Your task to perform on an android device: Add "razer blade" to the cart on costco, then select checkout. Image 0: 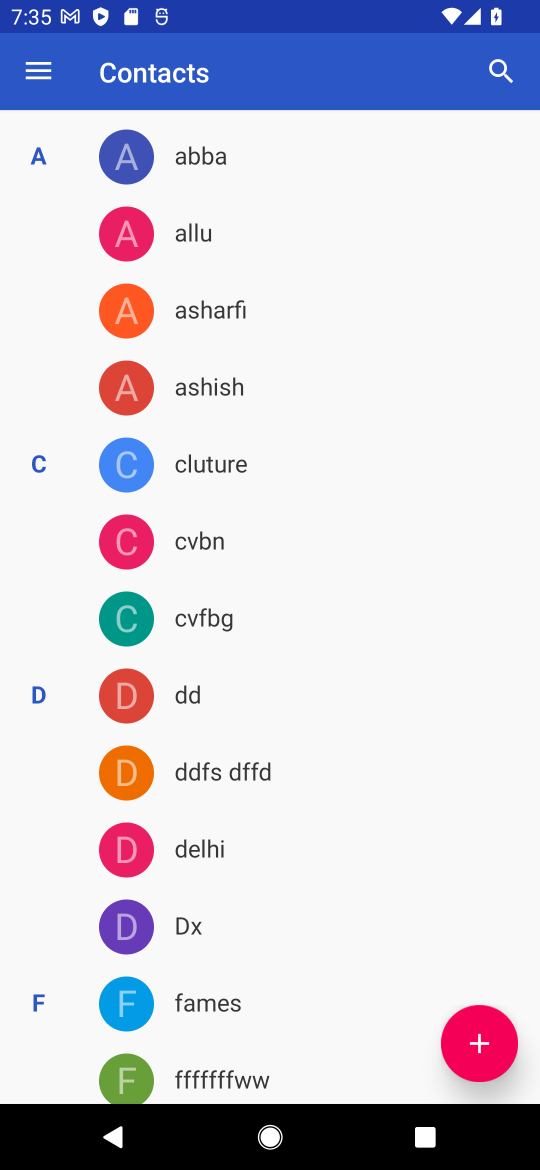
Step 0: press home button
Your task to perform on an android device: Add "razer blade" to the cart on costco, then select checkout. Image 1: 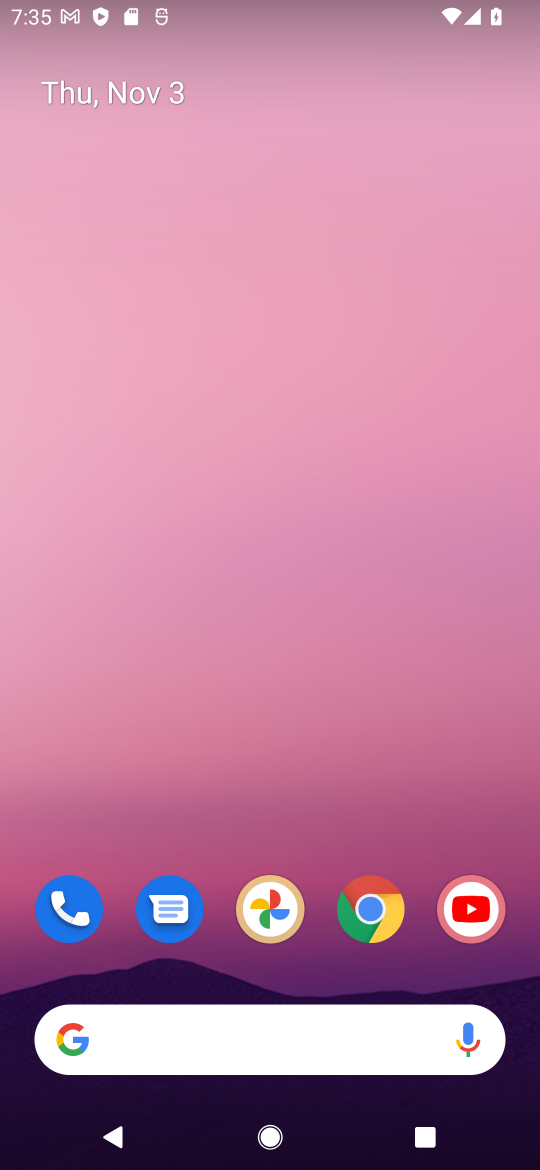
Step 1: drag from (258, 1004) to (334, 384)
Your task to perform on an android device: Add "razer blade" to the cart on costco, then select checkout. Image 2: 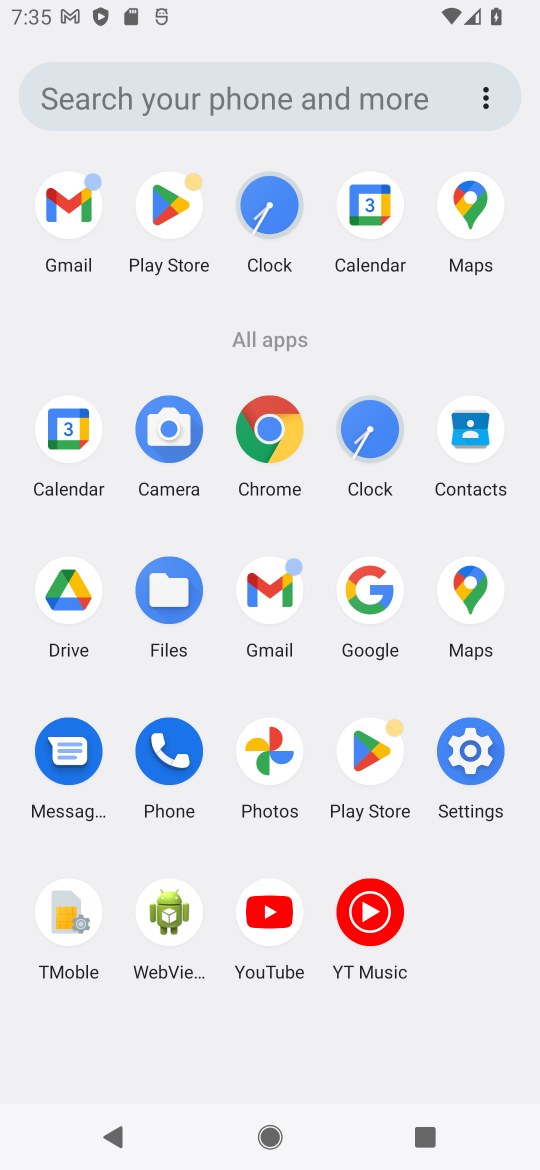
Step 2: click (355, 561)
Your task to perform on an android device: Add "razer blade" to the cart on costco, then select checkout. Image 3: 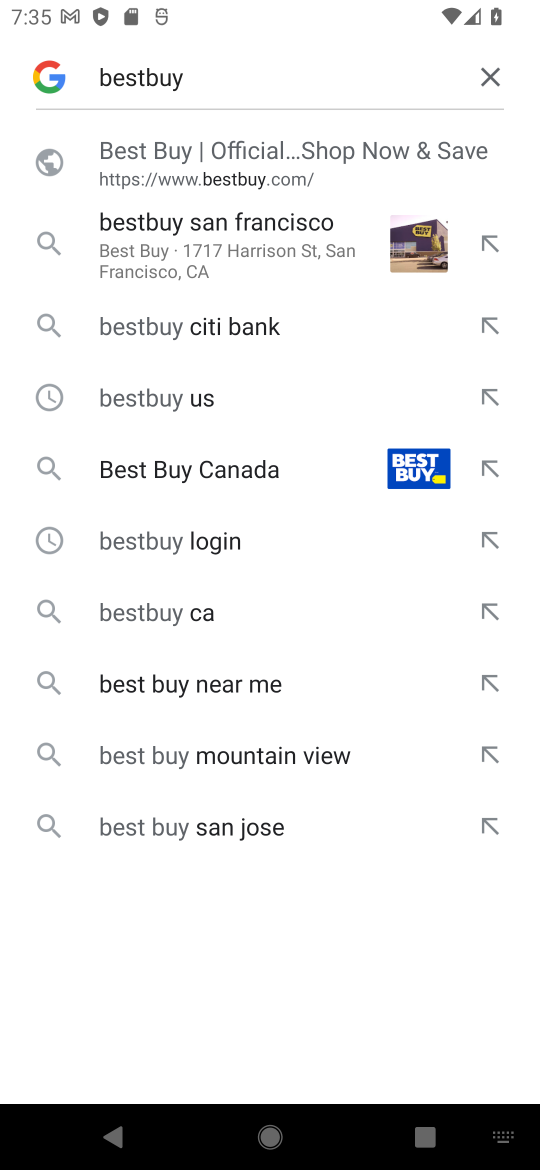
Step 3: click (479, 71)
Your task to perform on an android device: Add "razer blade" to the cart on costco, then select checkout. Image 4: 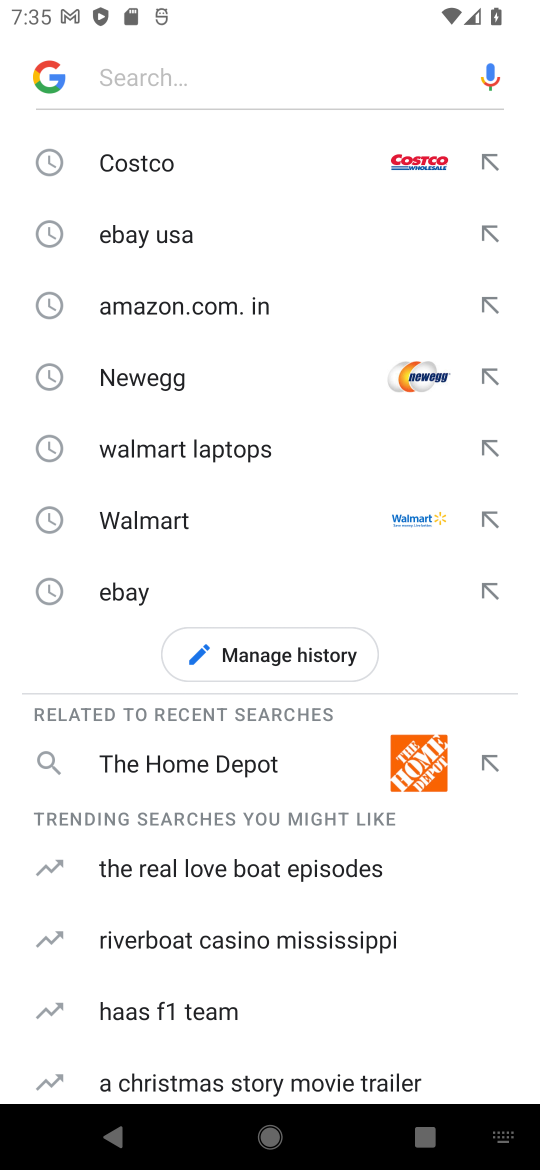
Step 4: click (234, 143)
Your task to perform on an android device: Add "razer blade" to the cart on costco, then select checkout. Image 5: 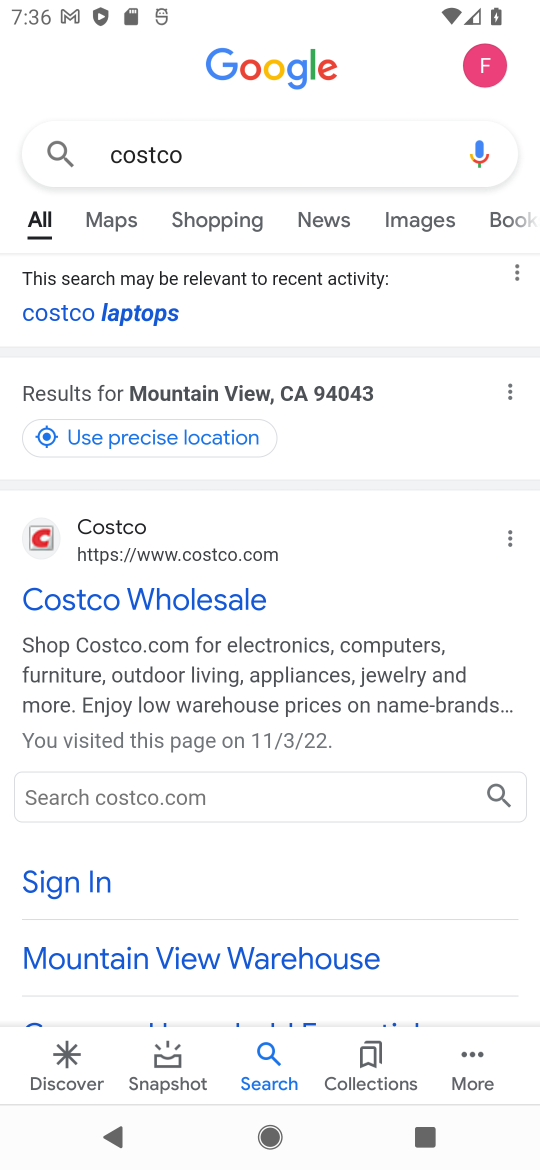
Step 5: click (32, 538)
Your task to perform on an android device: Add "razer blade" to the cart on costco, then select checkout. Image 6: 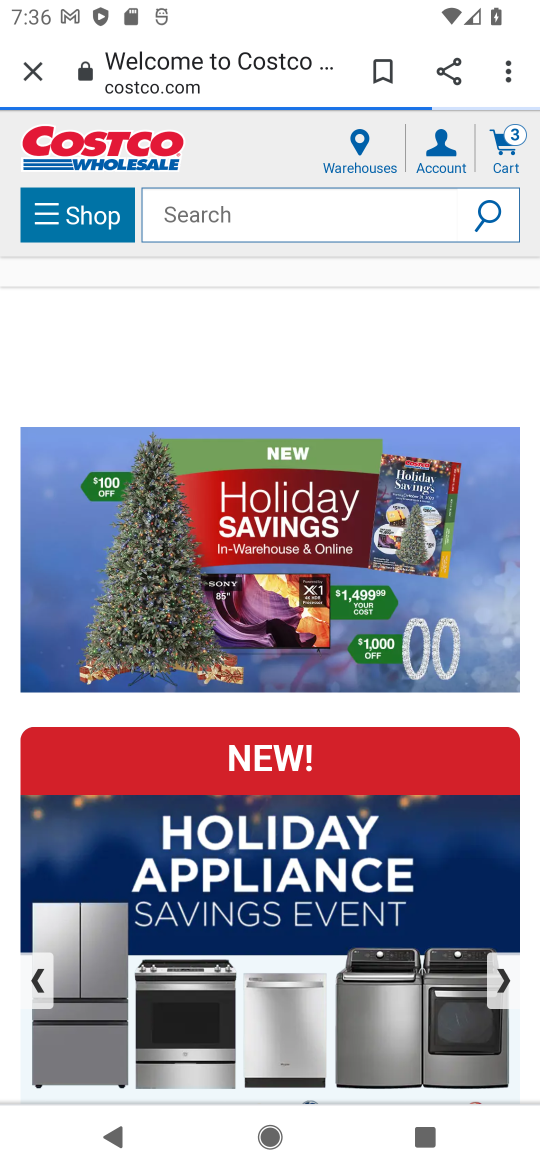
Step 6: click (354, 214)
Your task to perform on an android device: Add "razer blade" to the cart on costco, then select checkout. Image 7: 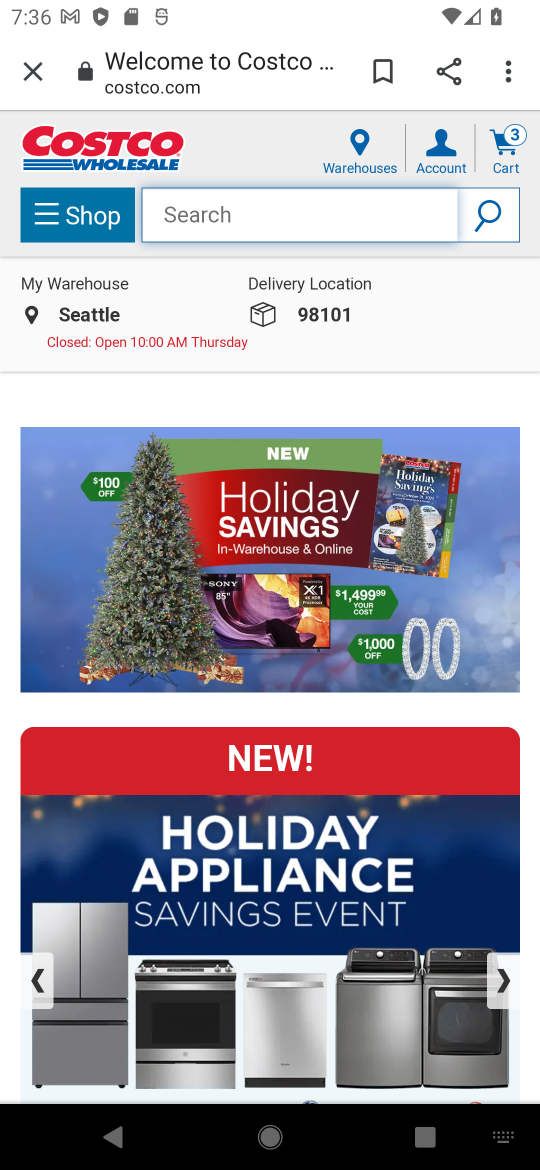
Step 7: click (258, 200)
Your task to perform on an android device: Add "razer blade" to the cart on costco, then select checkout. Image 8: 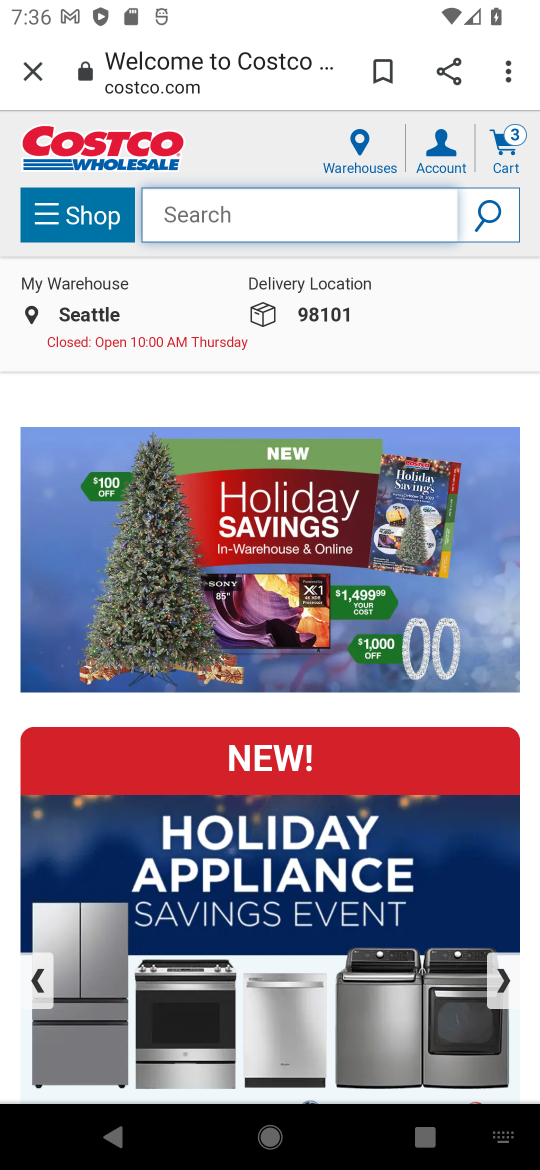
Step 8: type "razer blade" "
Your task to perform on an android device: Add "razer blade" to the cart on costco, then select checkout. Image 9: 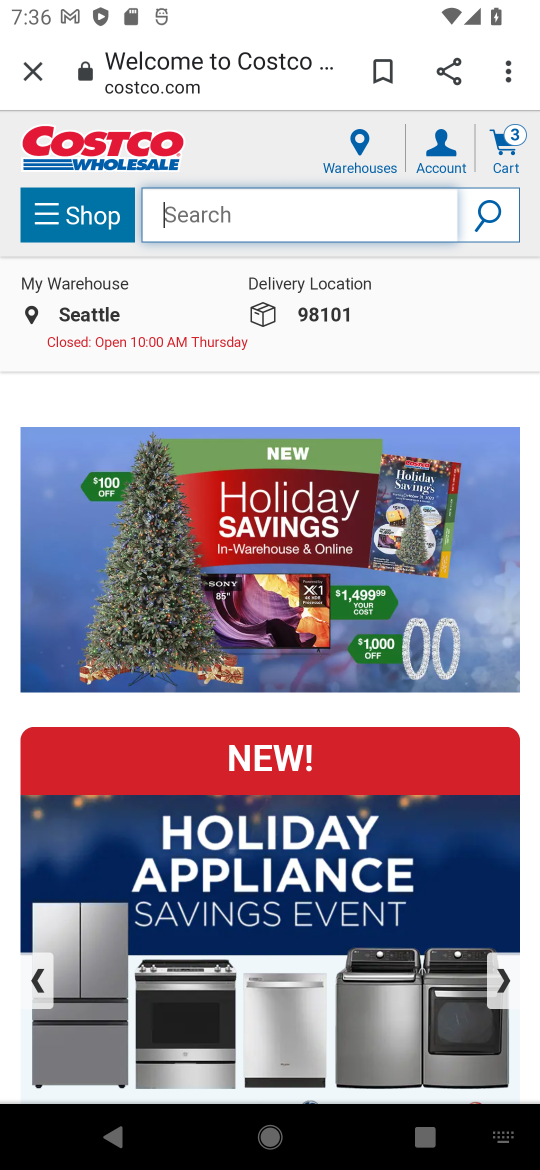
Step 9: click (245, 213)
Your task to perform on an android device: Add "razer blade" to the cart on costco, then select checkout. Image 10: 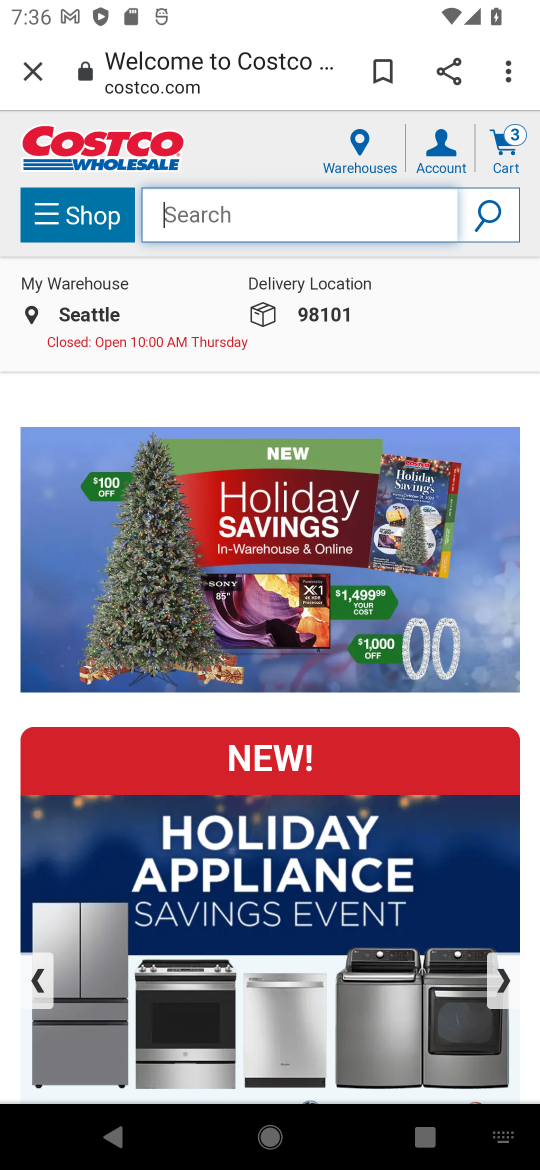
Step 10: type "razer blade "
Your task to perform on an android device: Add "razer blade" to the cart on costco, then select checkout. Image 11: 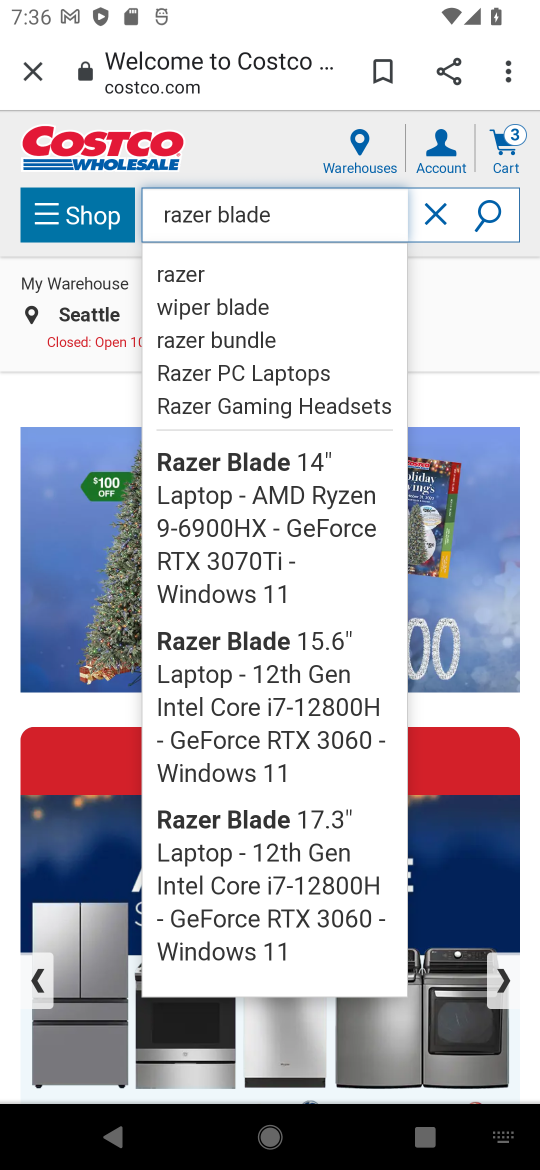
Step 11: click (496, 210)
Your task to perform on an android device: Add "razer blade" to the cart on costco, then select checkout. Image 12: 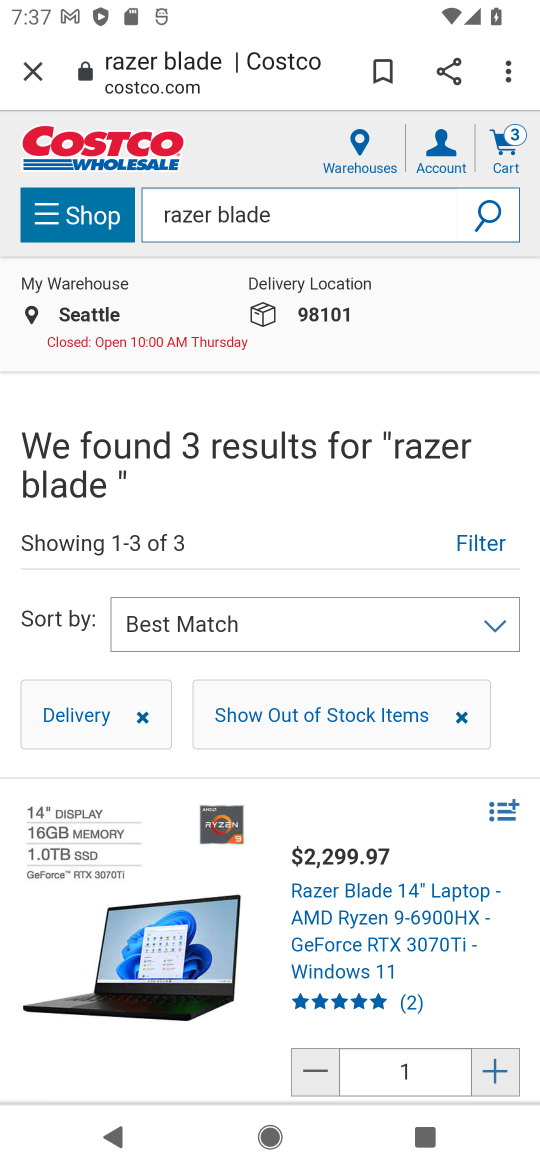
Step 12: click (486, 223)
Your task to perform on an android device: Add "razer blade" to the cart on costco, then select checkout. Image 13: 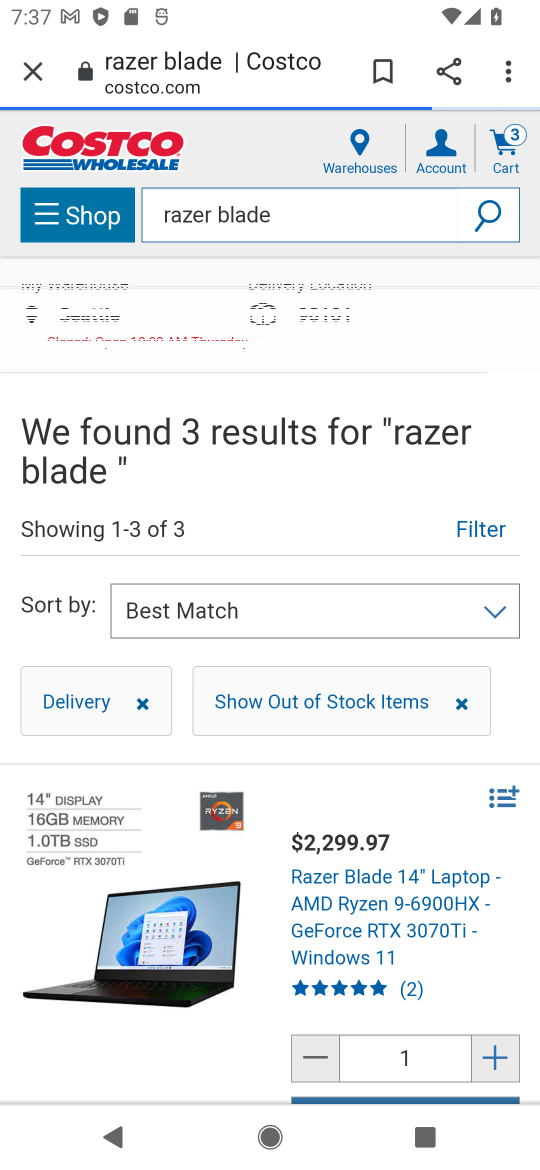
Step 13: drag from (346, 914) to (356, 685)
Your task to perform on an android device: Add "razer blade" to the cart on costco, then select checkout. Image 14: 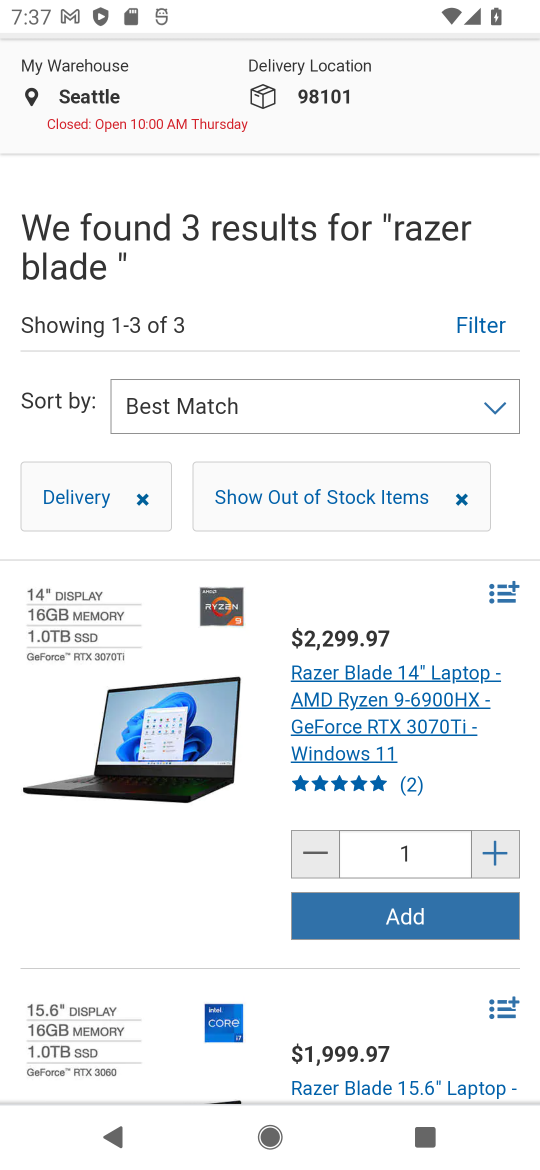
Step 14: click (395, 916)
Your task to perform on an android device: Add "razer blade" to the cart on costco, then select checkout. Image 15: 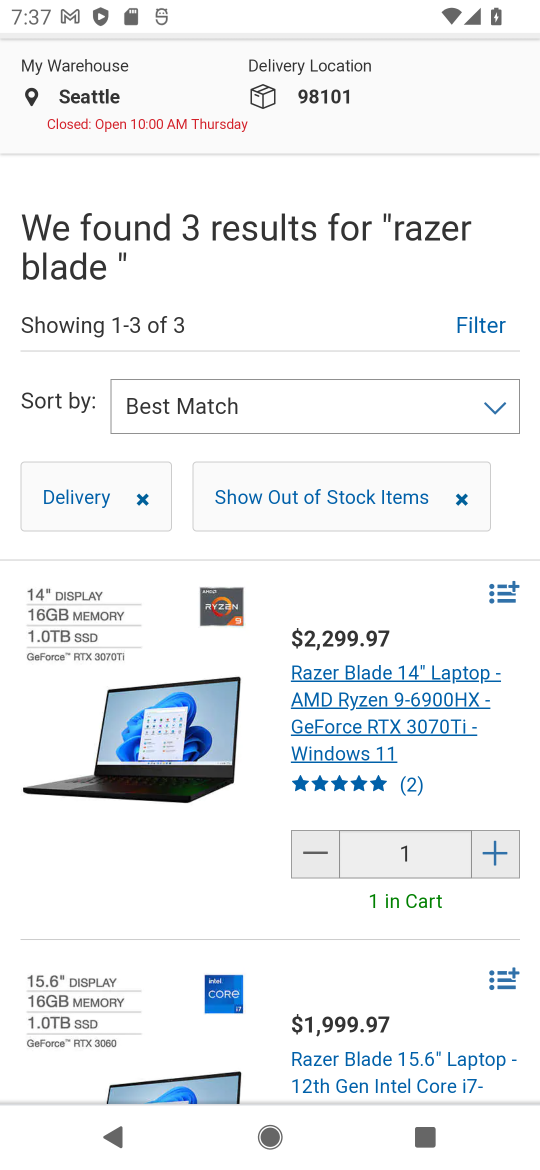
Step 15: task complete